Your task to perform on an android device: find photos in the google photos app Image 0: 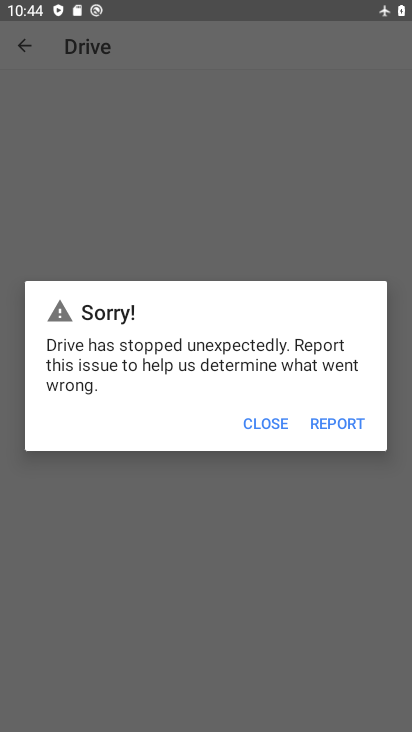
Step 0: press home button
Your task to perform on an android device: find photos in the google photos app Image 1: 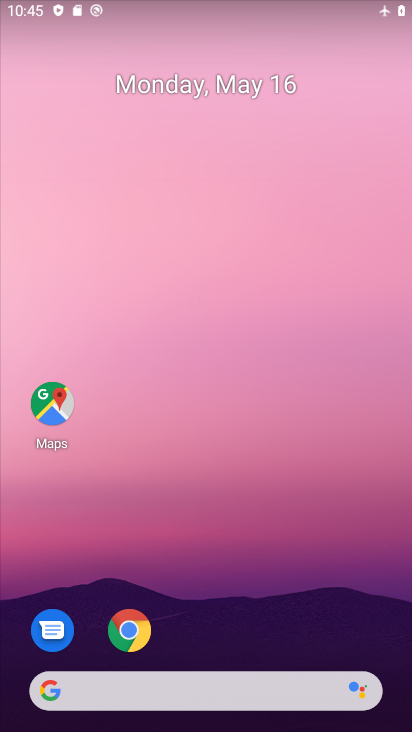
Step 1: drag from (217, 632) to (229, 311)
Your task to perform on an android device: find photos in the google photos app Image 2: 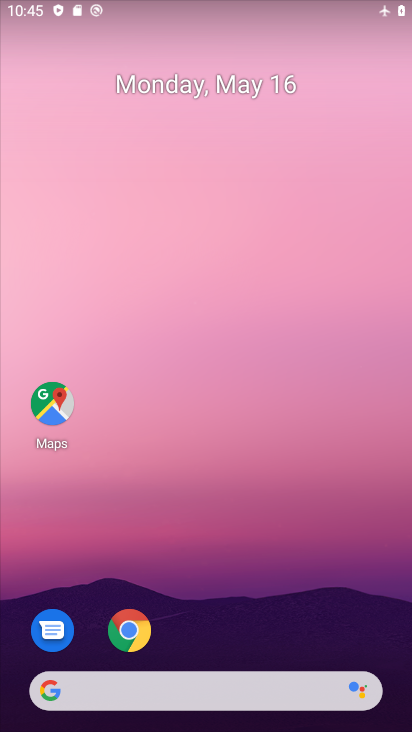
Step 2: drag from (217, 627) to (236, 99)
Your task to perform on an android device: find photos in the google photos app Image 3: 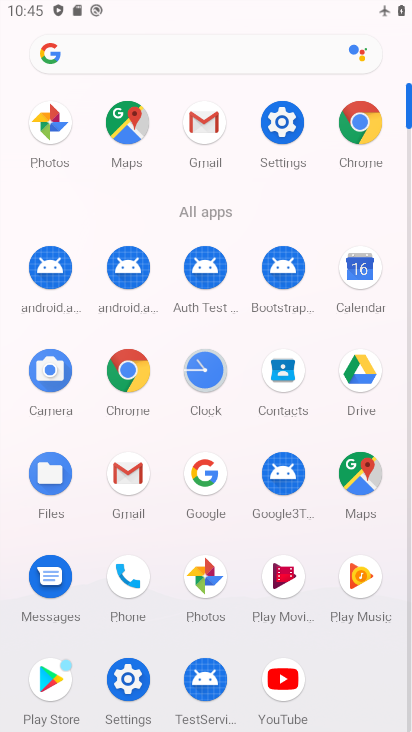
Step 3: click (50, 124)
Your task to perform on an android device: find photos in the google photos app Image 4: 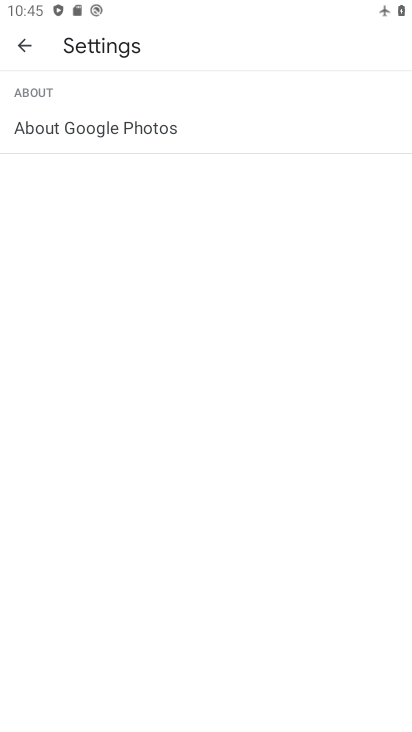
Step 4: click (24, 47)
Your task to perform on an android device: find photos in the google photos app Image 5: 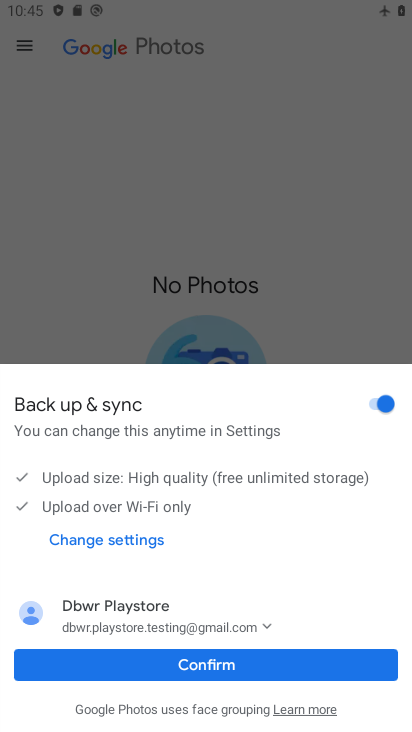
Step 5: click (237, 666)
Your task to perform on an android device: find photos in the google photos app Image 6: 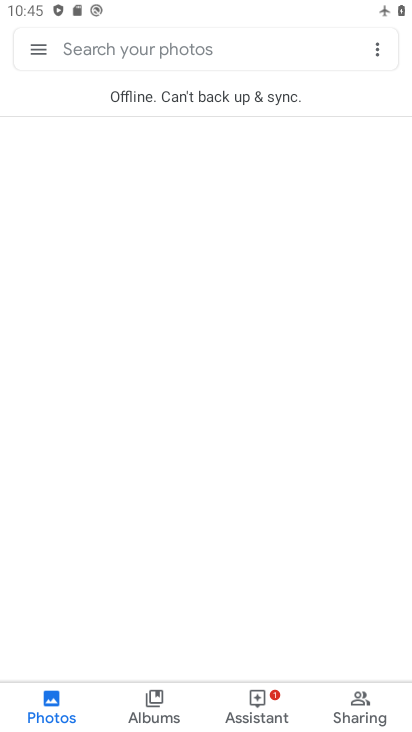
Step 6: task complete